Your task to perform on an android device: Open Google Chrome and click the shortcut for Amazon.com Image 0: 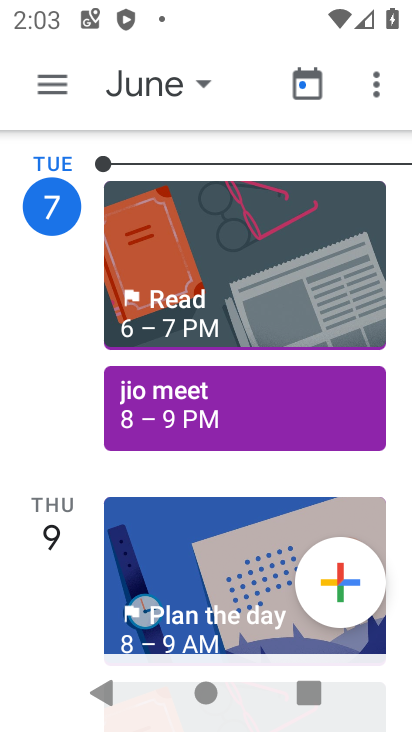
Step 0: press home button
Your task to perform on an android device: Open Google Chrome and click the shortcut for Amazon.com Image 1: 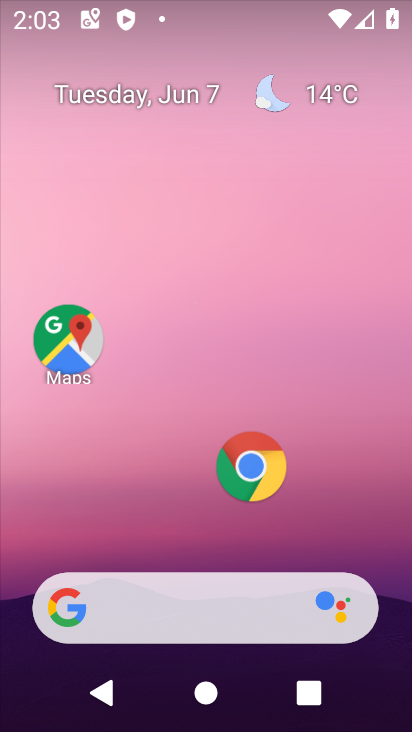
Step 1: click (275, 464)
Your task to perform on an android device: Open Google Chrome and click the shortcut for Amazon.com Image 2: 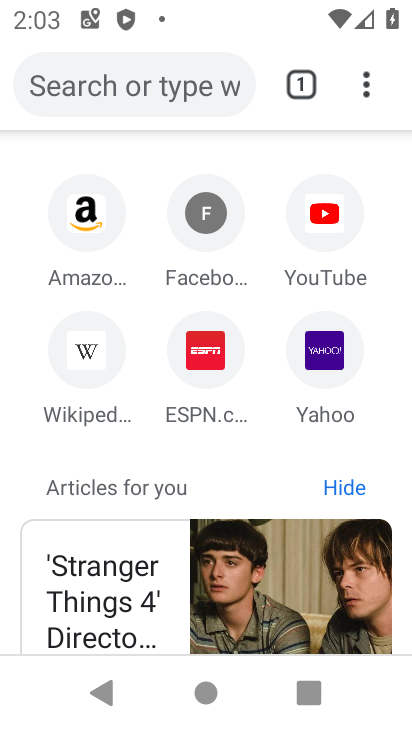
Step 2: click (77, 230)
Your task to perform on an android device: Open Google Chrome and click the shortcut for Amazon.com Image 3: 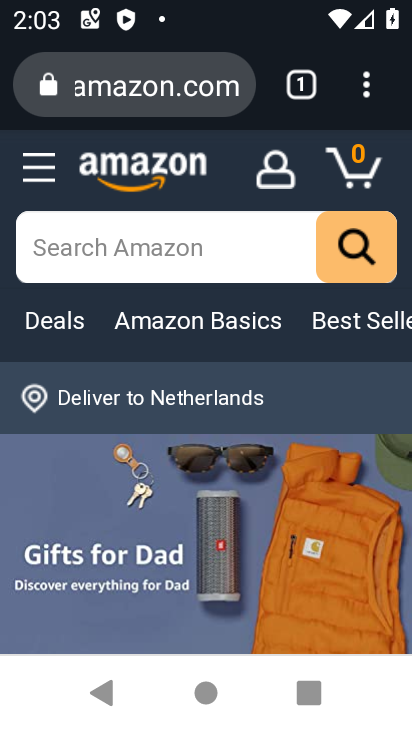
Step 3: task complete